Your task to perform on an android device: toggle javascript in the chrome app Image 0: 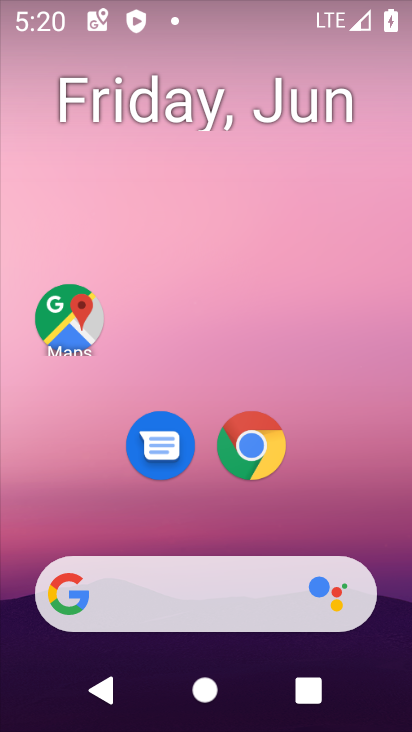
Step 0: drag from (396, 605) to (319, 26)
Your task to perform on an android device: toggle javascript in the chrome app Image 1: 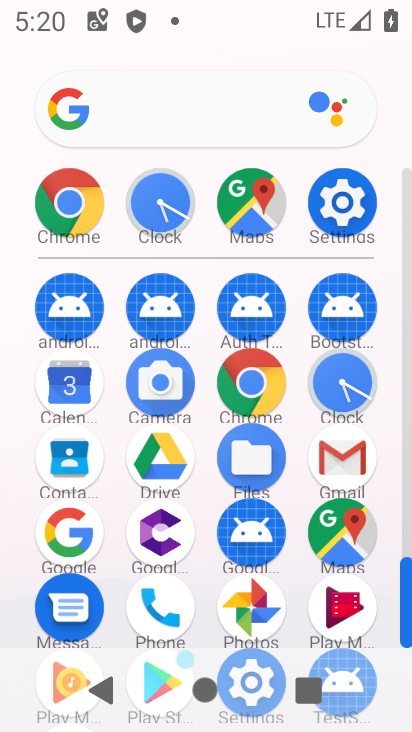
Step 1: click (242, 375)
Your task to perform on an android device: toggle javascript in the chrome app Image 2: 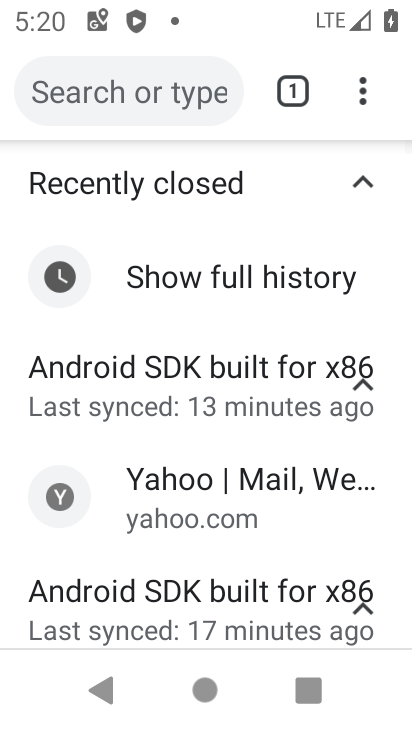
Step 2: click (145, 81)
Your task to perform on an android device: toggle javascript in the chrome app Image 3: 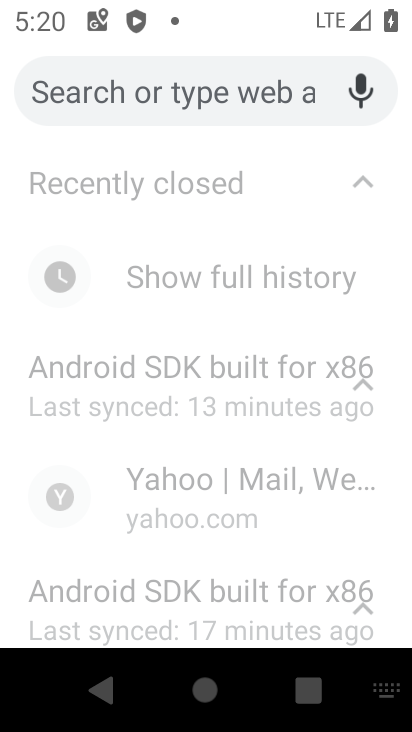
Step 3: press back button
Your task to perform on an android device: toggle javascript in the chrome app Image 4: 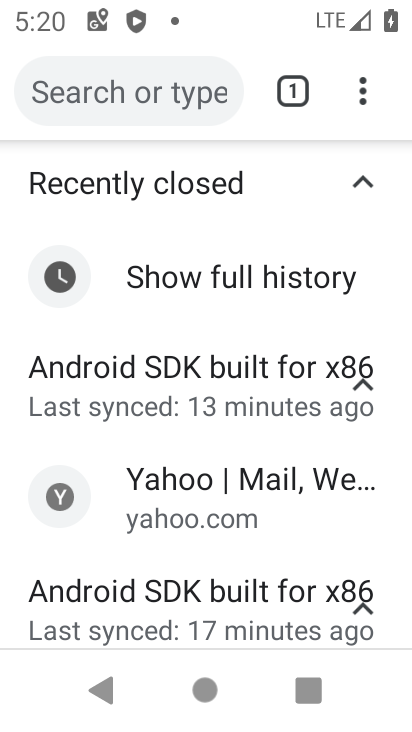
Step 4: drag from (361, 93) to (175, 476)
Your task to perform on an android device: toggle javascript in the chrome app Image 5: 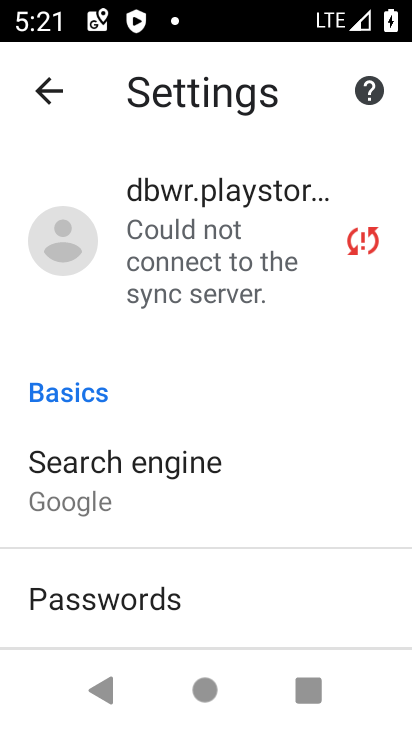
Step 5: drag from (215, 548) to (212, 175)
Your task to perform on an android device: toggle javascript in the chrome app Image 6: 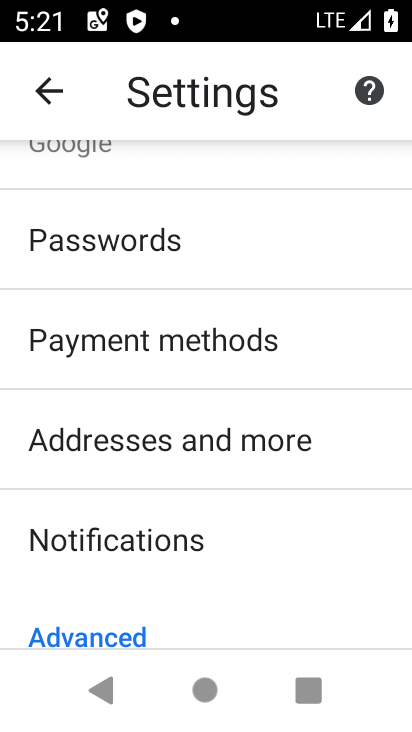
Step 6: drag from (259, 551) to (224, 199)
Your task to perform on an android device: toggle javascript in the chrome app Image 7: 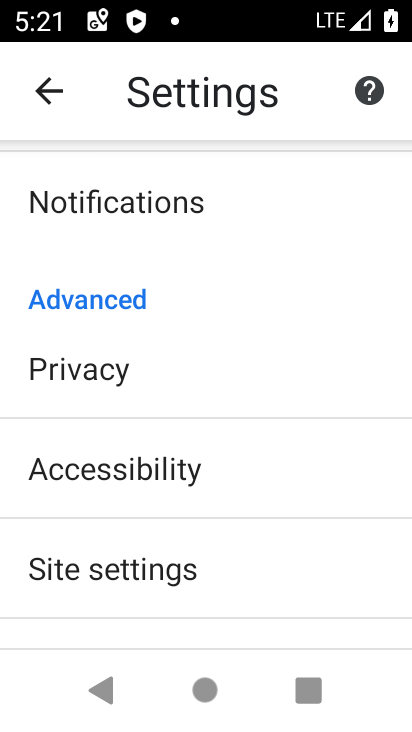
Step 7: drag from (253, 483) to (252, 235)
Your task to perform on an android device: toggle javascript in the chrome app Image 8: 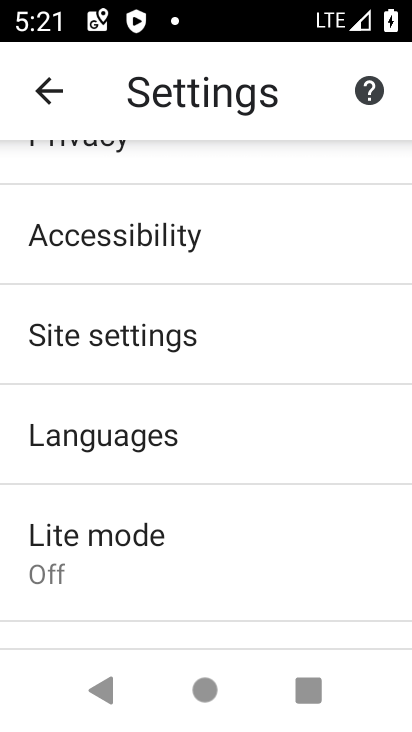
Step 8: click (160, 337)
Your task to perform on an android device: toggle javascript in the chrome app Image 9: 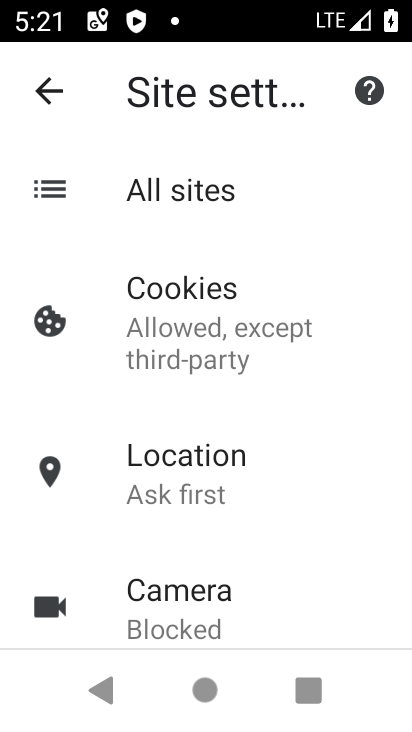
Step 9: task complete